Your task to perform on an android device: set the timer Image 0: 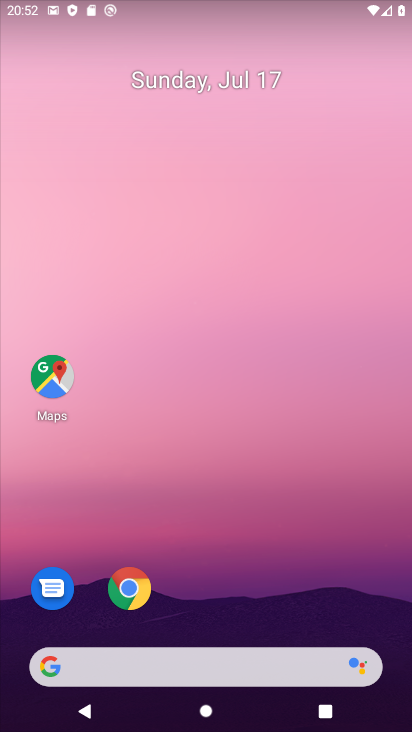
Step 0: press home button
Your task to perform on an android device: set the timer Image 1: 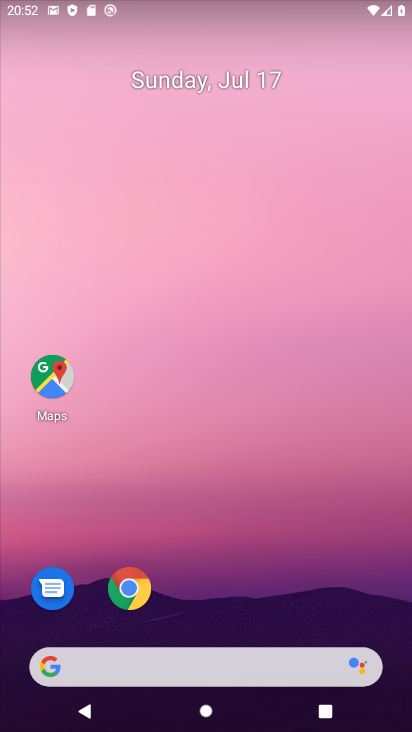
Step 1: click (405, 567)
Your task to perform on an android device: set the timer Image 2: 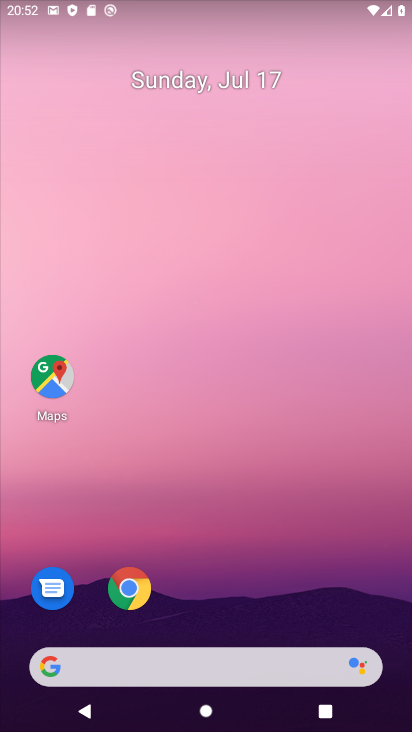
Step 2: drag from (265, 635) to (322, 36)
Your task to perform on an android device: set the timer Image 3: 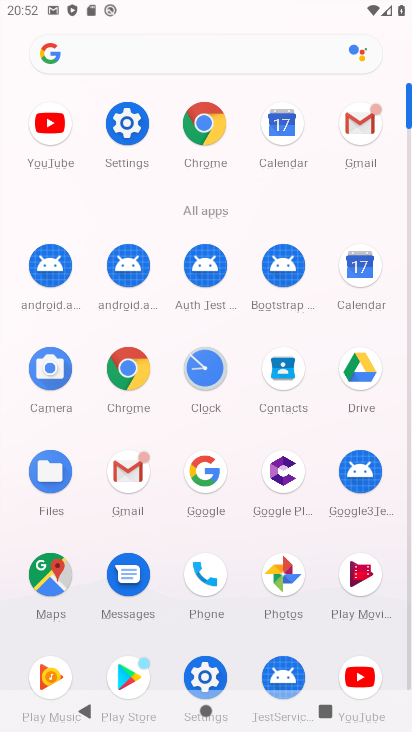
Step 3: click (237, 380)
Your task to perform on an android device: set the timer Image 4: 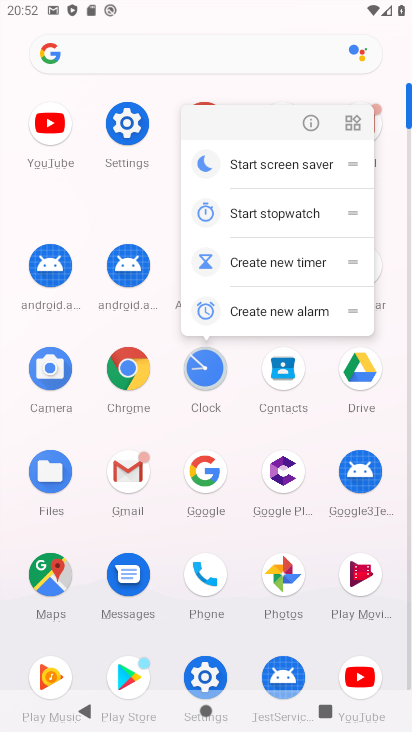
Step 4: click (196, 378)
Your task to perform on an android device: set the timer Image 5: 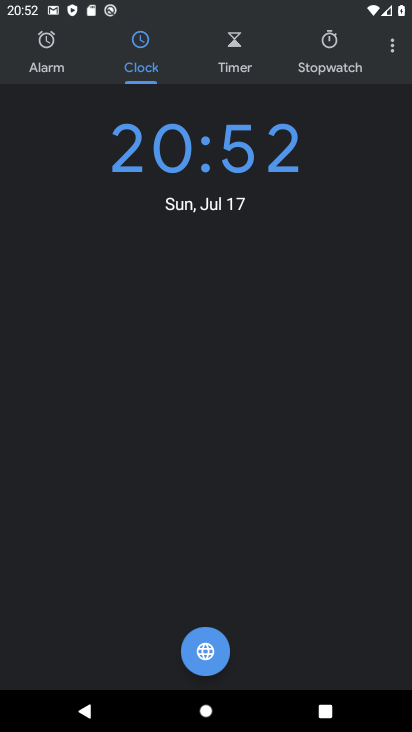
Step 5: drag from (400, 38) to (348, 210)
Your task to perform on an android device: set the timer Image 6: 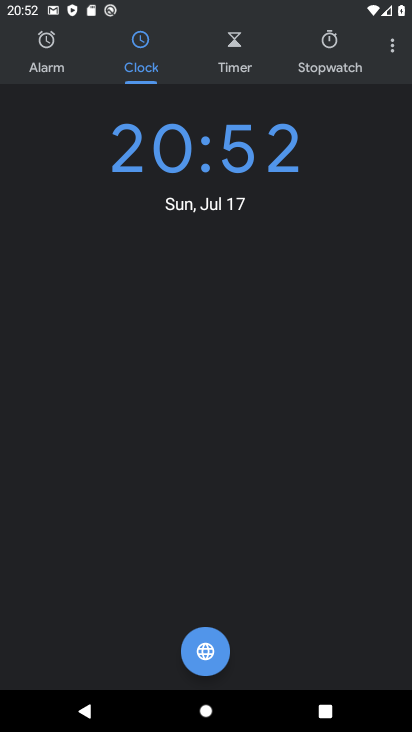
Step 6: click (229, 56)
Your task to perform on an android device: set the timer Image 7: 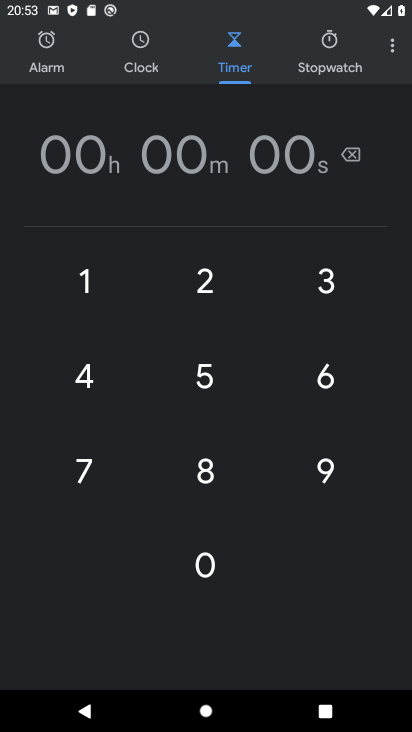
Step 7: click (201, 361)
Your task to perform on an android device: set the timer Image 8: 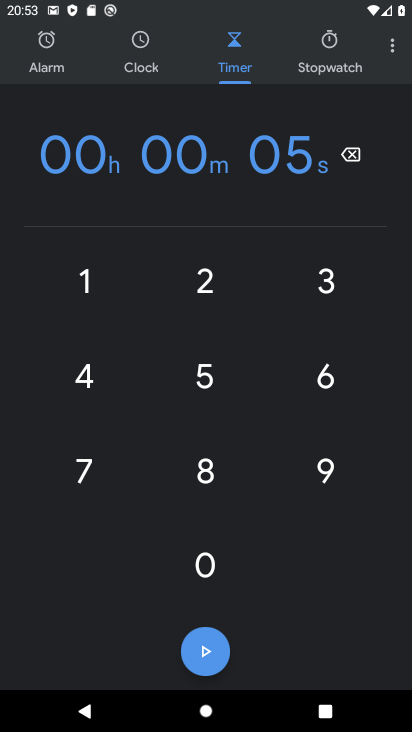
Step 8: click (195, 546)
Your task to perform on an android device: set the timer Image 9: 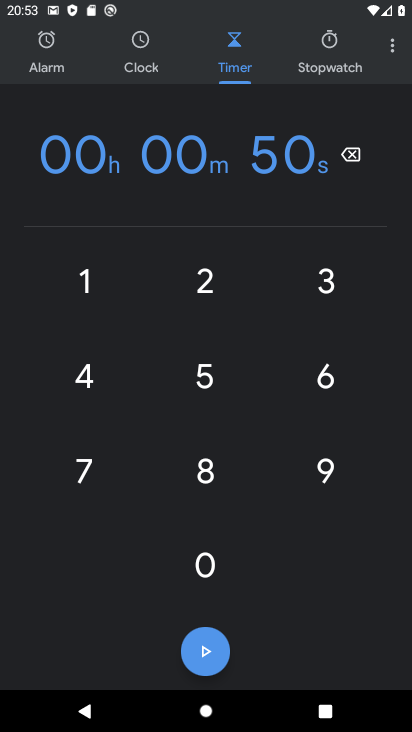
Step 9: click (207, 651)
Your task to perform on an android device: set the timer Image 10: 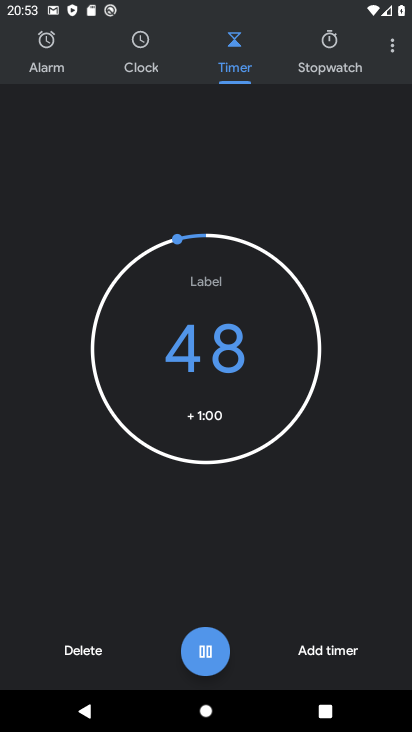
Step 10: task complete